Your task to perform on an android device: Open Amazon Image 0: 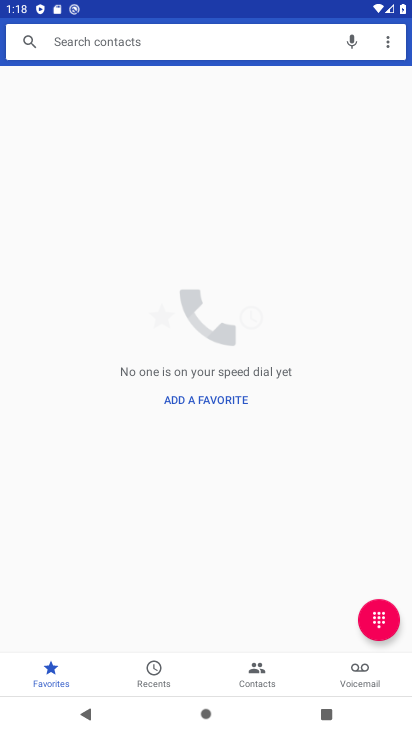
Step 0: press home button
Your task to perform on an android device: Open Amazon Image 1: 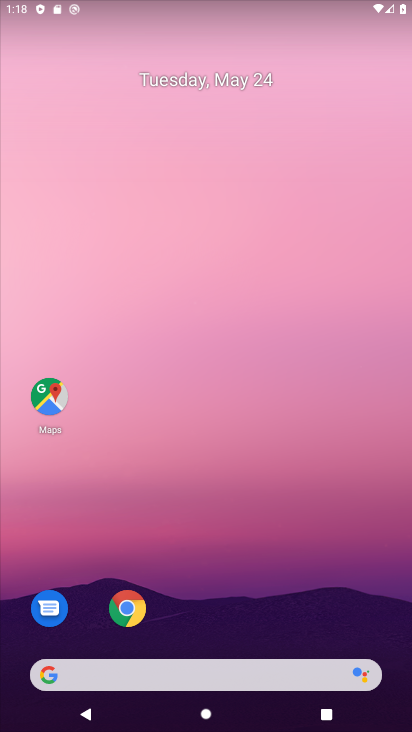
Step 1: click (137, 606)
Your task to perform on an android device: Open Amazon Image 2: 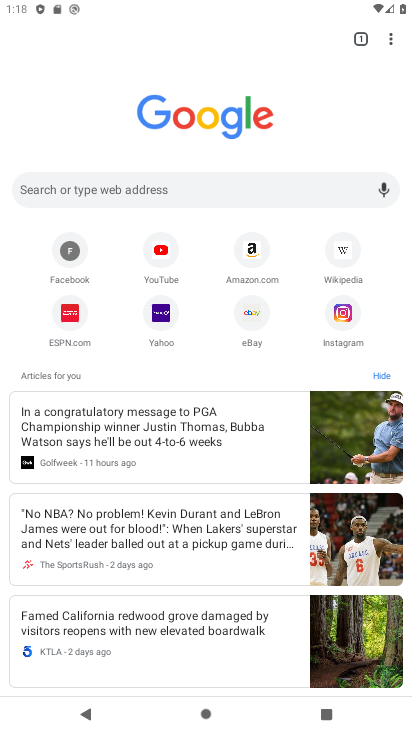
Step 2: click (252, 254)
Your task to perform on an android device: Open Amazon Image 3: 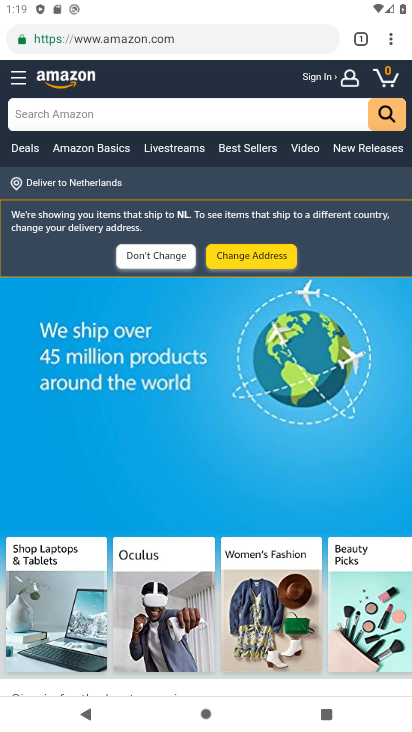
Step 3: task complete